Your task to perform on an android device: turn off picture-in-picture Image 0: 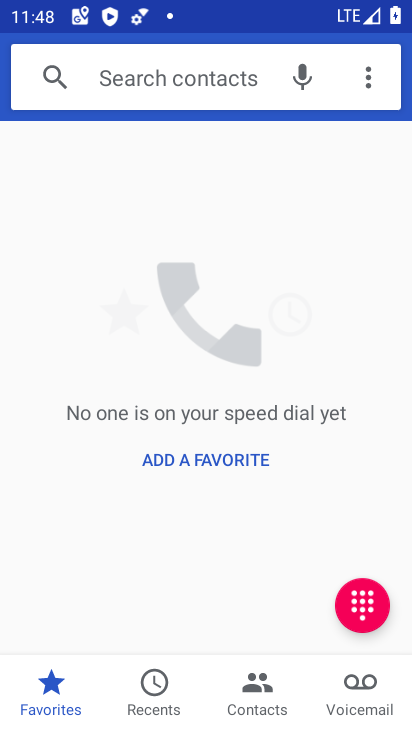
Step 0: press back button
Your task to perform on an android device: turn off picture-in-picture Image 1: 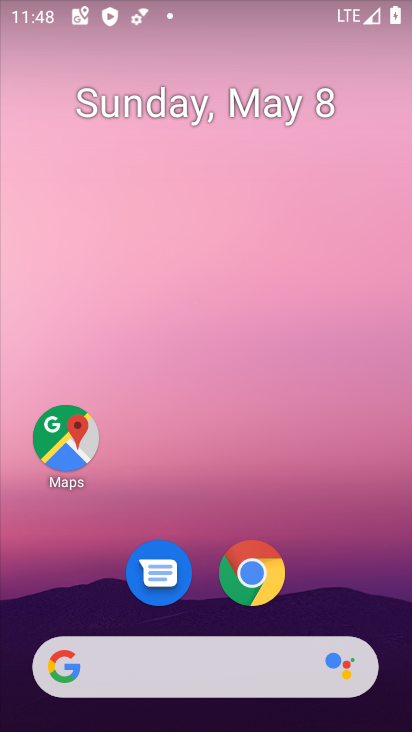
Step 1: drag from (297, 453) to (258, 3)
Your task to perform on an android device: turn off picture-in-picture Image 2: 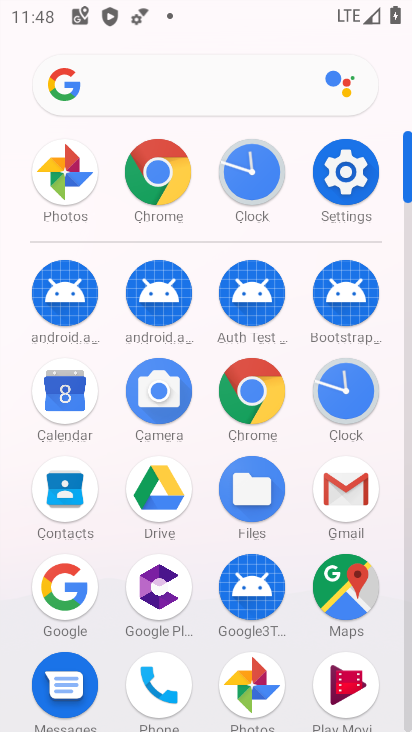
Step 2: click (340, 169)
Your task to perform on an android device: turn off picture-in-picture Image 3: 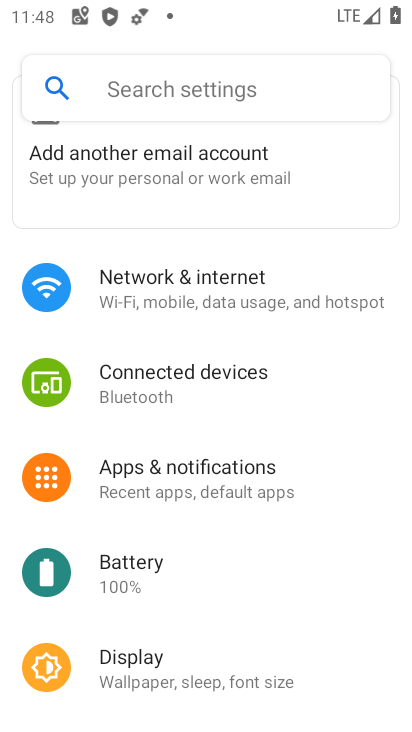
Step 3: drag from (249, 615) to (235, 147)
Your task to perform on an android device: turn off picture-in-picture Image 4: 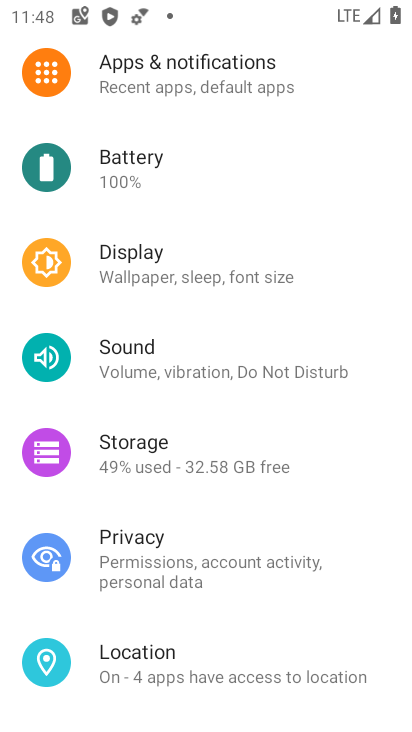
Step 4: drag from (250, 537) to (302, 103)
Your task to perform on an android device: turn off picture-in-picture Image 5: 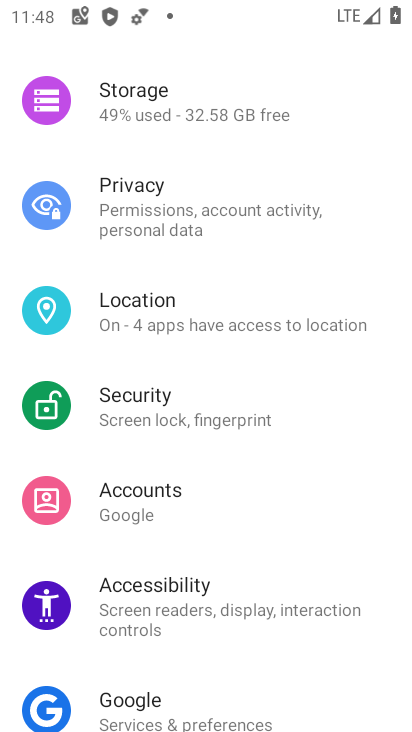
Step 5: drag from (304, 503) to (309, 128)
Your task to perform on an android device: turn off picture-in-picture Image 6: 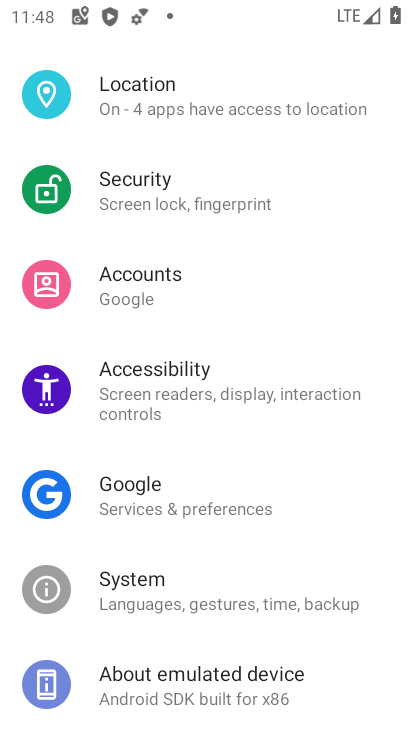
Step 6: drag from (240, 625) to (252, 155)
Your task to perform on an android device: turn off picture-in-picture Image 7: 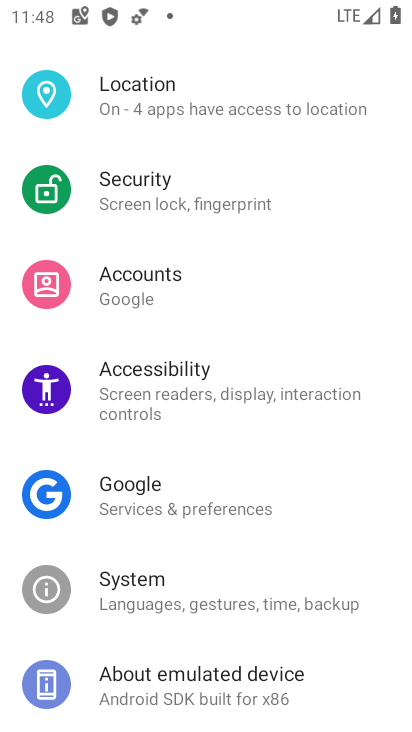
Step 7: drag from (203, 194) to (211, 689)
Your task to perform on an android device: turn off picture-in-picture Image 8: 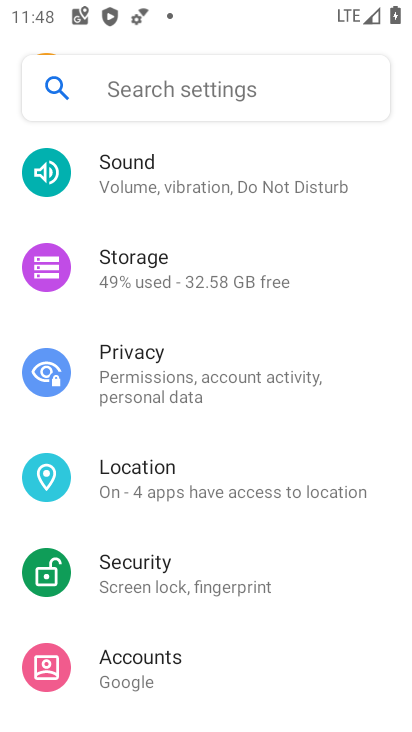
Step 8: drag from (248, 243) to (252, 666)
Your task to perform on an android device: turn off picture-in-picture Image 9: 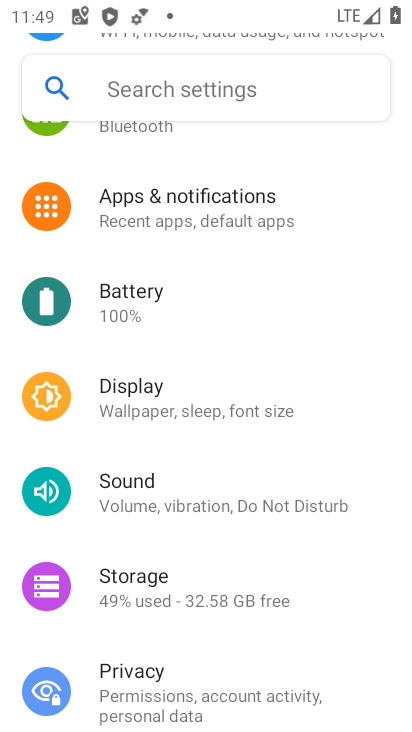
Step 9: drag from (206, 199) to (205, 586)
Your task to perform on an android device: turn off picture-in-picture Image 10: 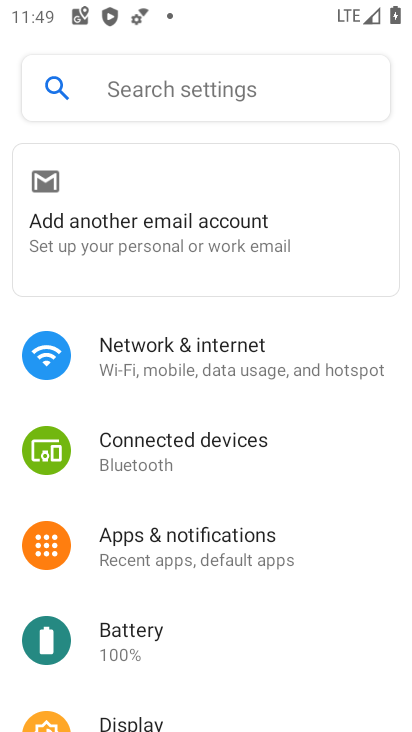
Step 10: click (208, 539)
Your task to perform on an android device: turn off picture-in-picture Image 11: 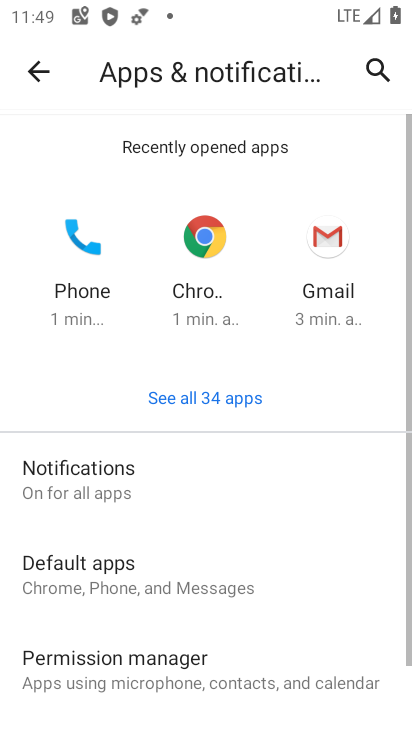
Step 11: drag from (244, 596) to (243, 129)
Your task to perform on an android device: turn off picture-in-picture Image 12: 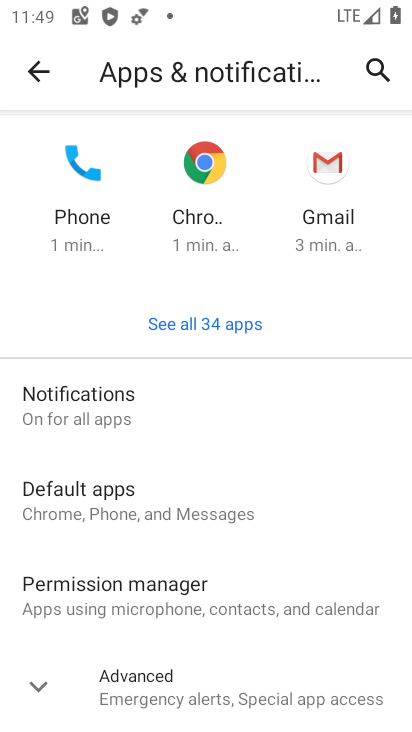
Step 12: drag from (241, 581) to (242, 434)
Your task to perform on an android device: turn off picture-in-picture Image 13: 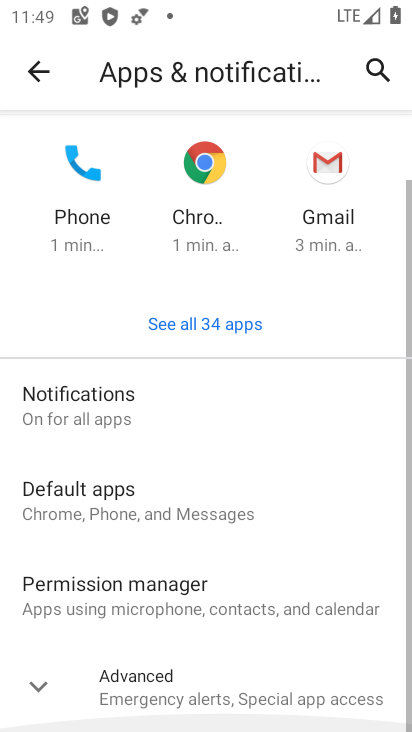
Step 13: click (136, 664)
Your task to perform on an android device: turn off picture-in-picture Image 14: 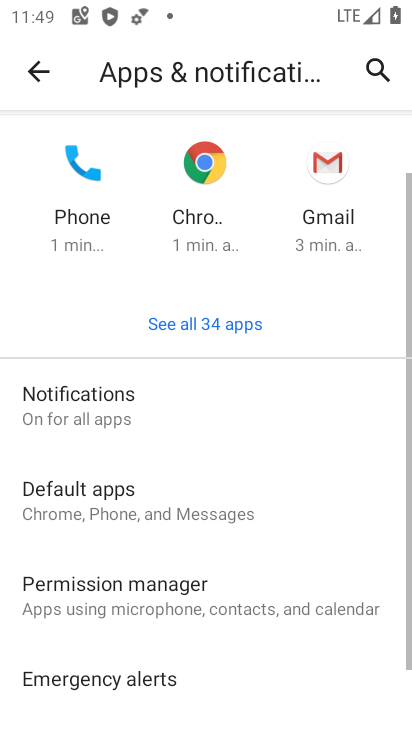
Step 14: drag from (252, 684) to (298, 178)
Your task to perform on an android device: turn off picture-in-picture Image 15: 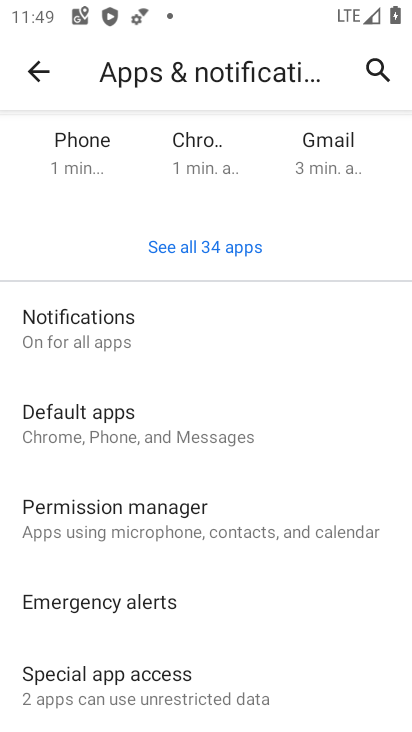
Step 15: click (149, 682)
Your task to perform on an android device: turn off picture-in-picture Image 16: 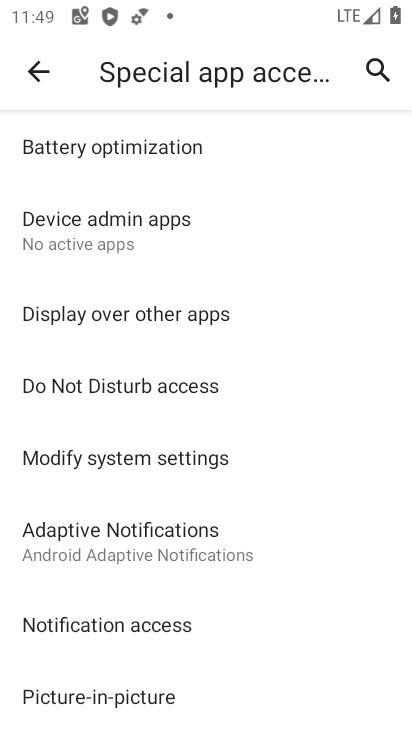
Step 16: drag from (284, 639) to (308, 324)
Your task to perform on an android device: turn off picture-in-picture Image 17: 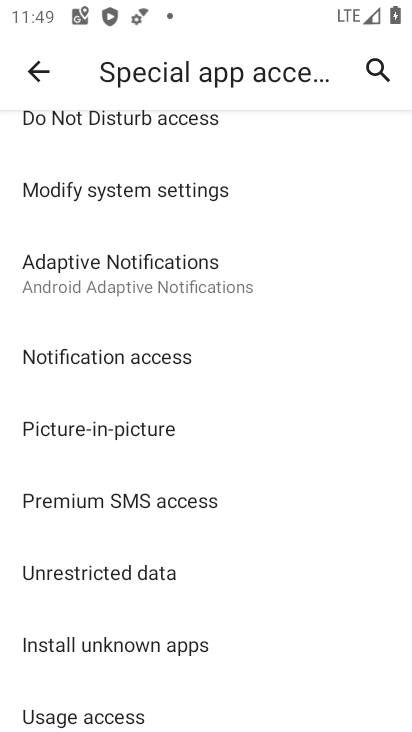
Step 17: click (135, 428)
Your task to perform on an android device: turn off picture-in-picture Image 18: 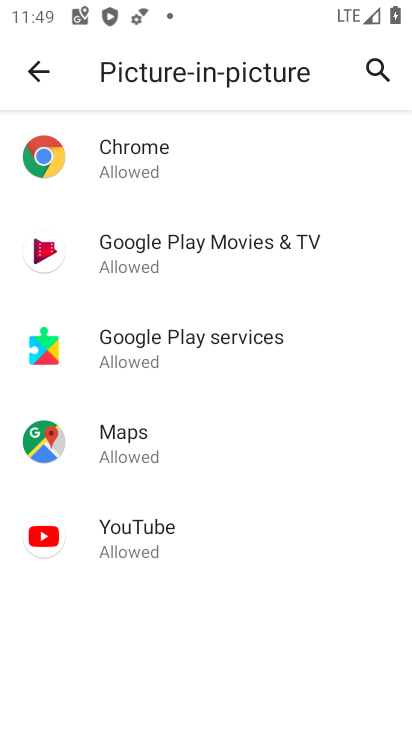
Step 18: click (174, 164)
Your task to perform on an android device: turn off picture-in-picture Image 19: 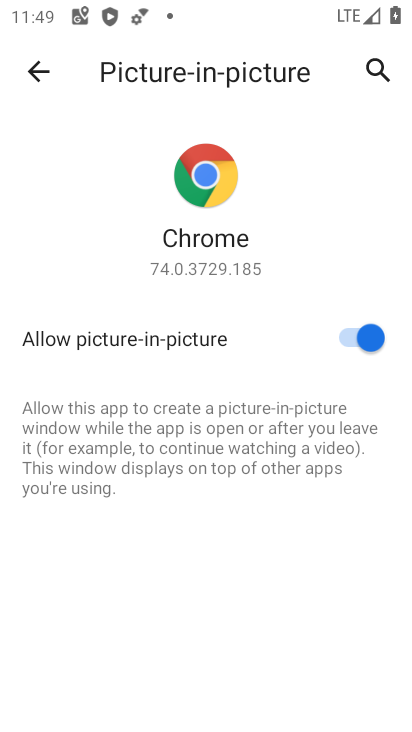
Step 19: click (362, 338)
Your task to perform on an android device: turn off picture-in-picture Image 20: 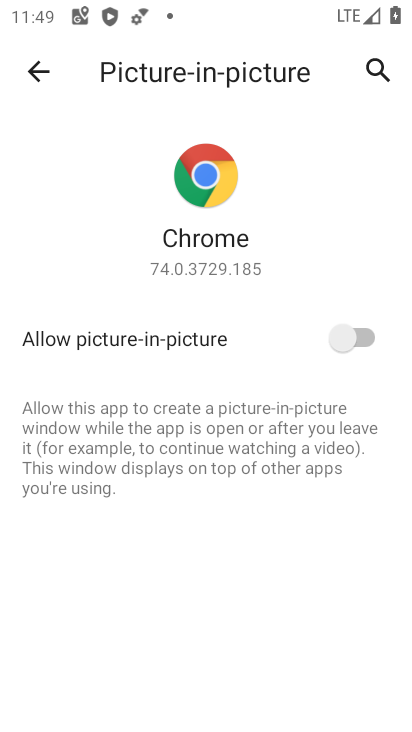
Step 20: click (26, 65)
Your task to perform on an android device: turn off picture-in-picture Image 21: 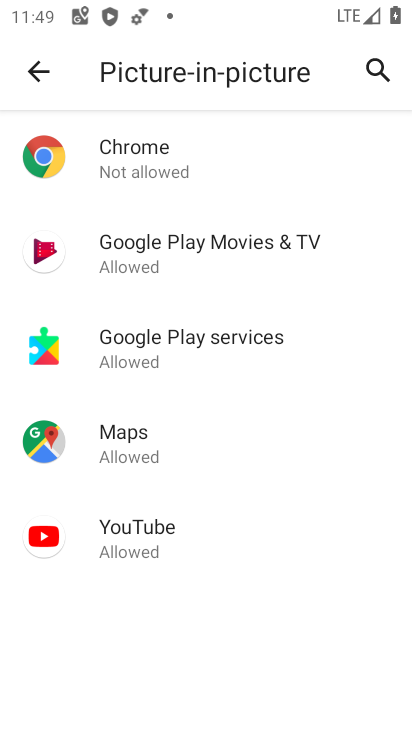
Step 21: click (157, 250)
Your task to perform on an android device: turn off picture-in-picture Image 22: 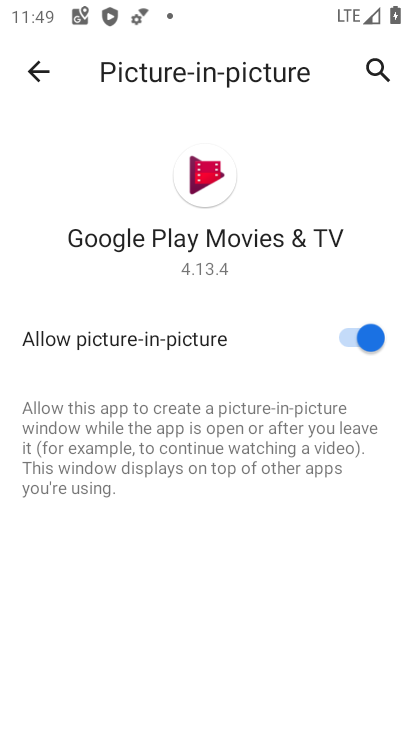
Step 22: click (355, 334)
Your task to perform on an android device: turn off picture-in-picture Image 23: 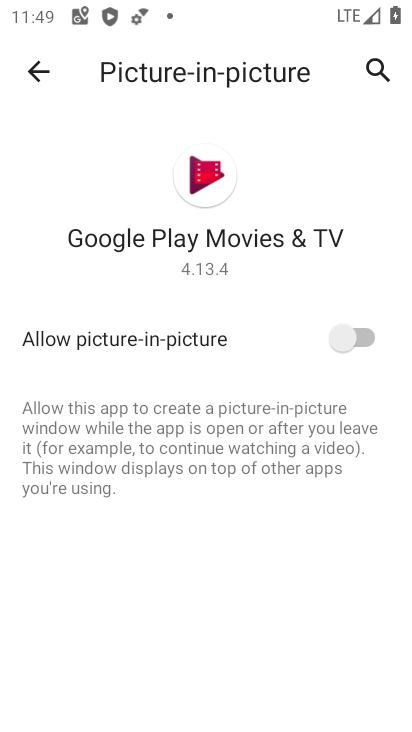
Step 23: click (34, 70)
Your task to perform on an android device: turn off picture-in-picture Image 24: 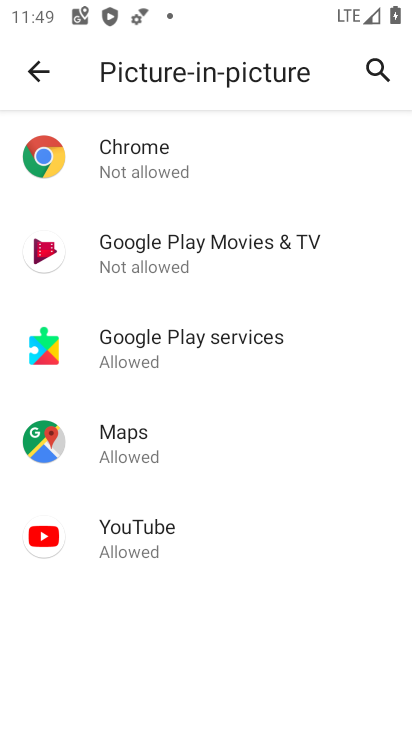
Step 24: click (164, 335)
Your task to perform on an android device: turn off picture-in-picture Image 25: 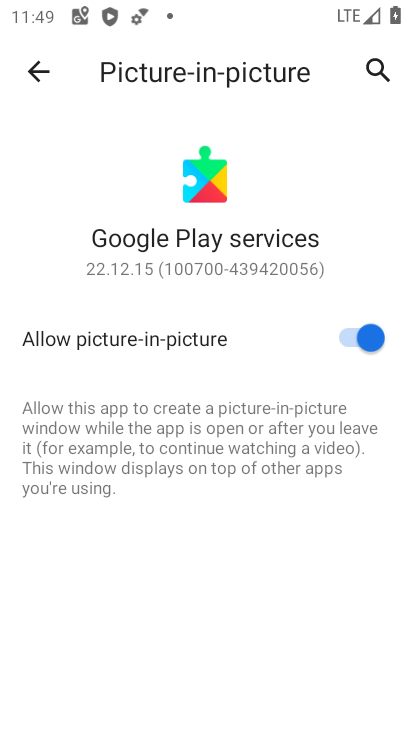
Step 25: click (348, 336)
Your task to perform on an android device: turn off picture-in-picture Image 26: 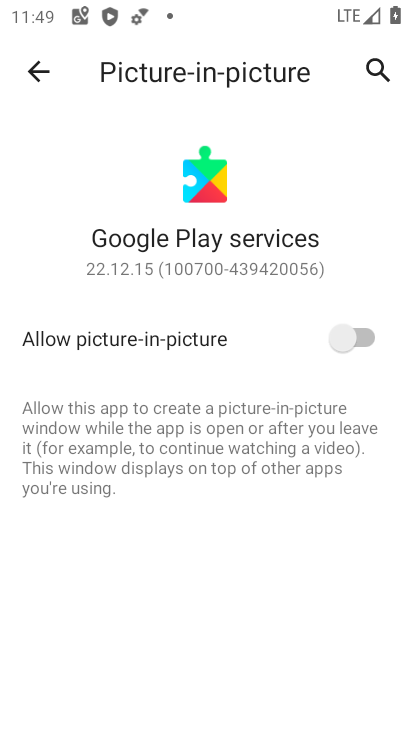
Step 26: click (38, 71)
Your task to perform on an android device: turn off picture-in-picture Image 27: 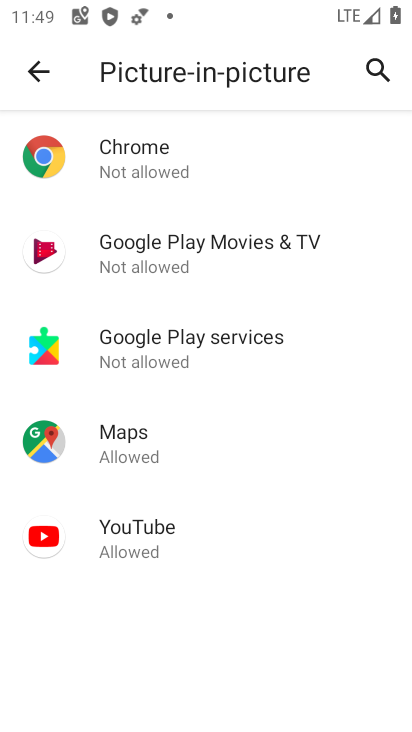
Step 27: click (161, 430)
Your task to perform on an android device: turn off picture-in-picture Image 28: 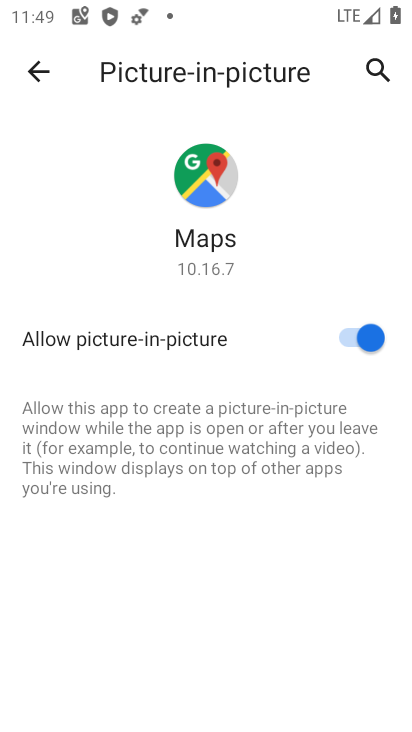
Step 28: click (361, 339)
Your task to perform on an android device: turn off picture-in-picture Image 29: 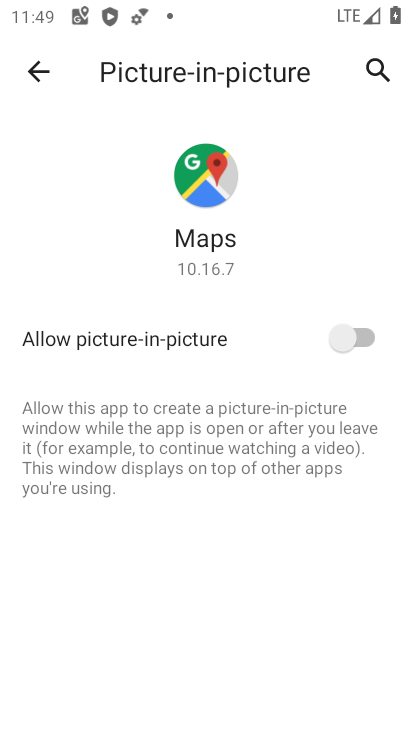
Step 29: click (33, 78)
Your task to perform on an android device: turn off picture-in-picture Image 30: 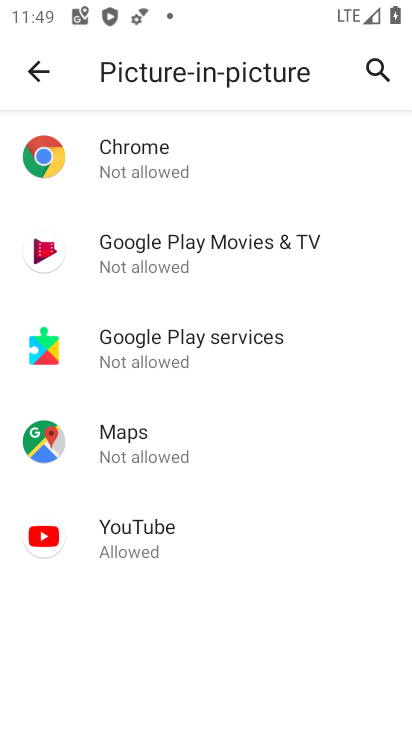
Step 30: click (151, 521)
Your task to perform on an android device: turn off picture-in-picture Image 31: 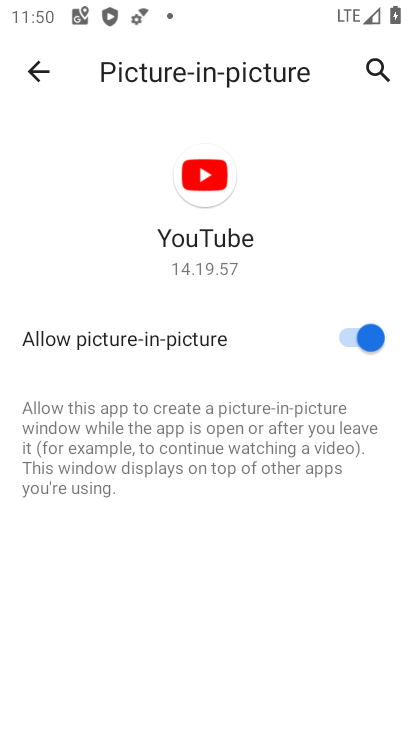
Step 31: click (343, 326)
Your task to perform on an android device: turn off picture-in-picture Image 32: 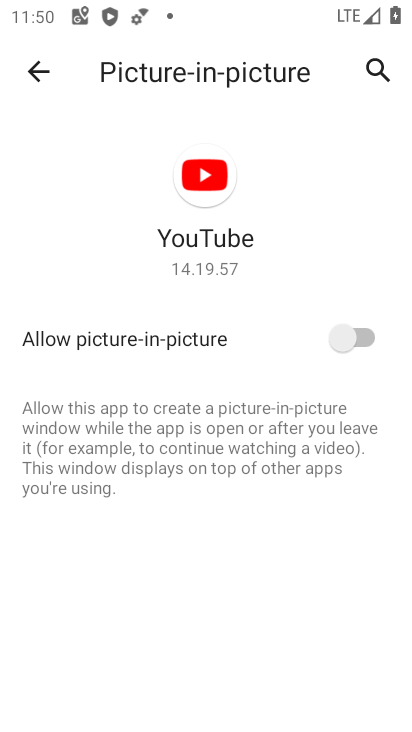
Step 32: click (37, 61)
Your task to perform on an android device: turn off picture-in-picture Image 33: 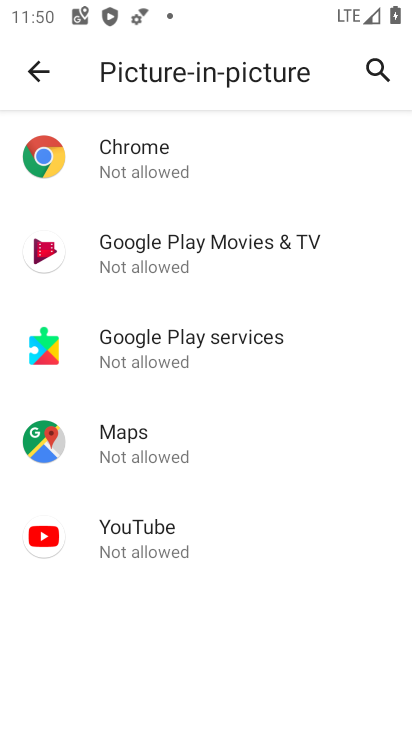
Step 33: task complete